Your task to perform on an android device: toggle pop-ups in chrome Image 0: 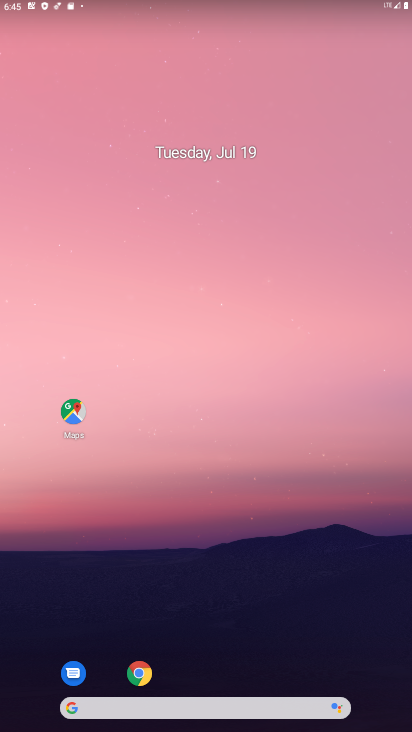
Step 0: drag from (376, 669) to (241, 56)
Your task to perform on an android device: toggle pop-ups in chrome Image 1: 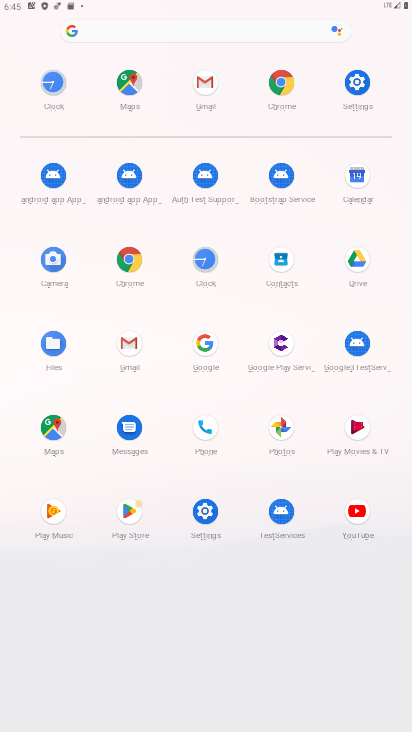
Step 1: click (127, 252)
Your task to perform on an android device: toggle pop-ups in chrome Image 2: 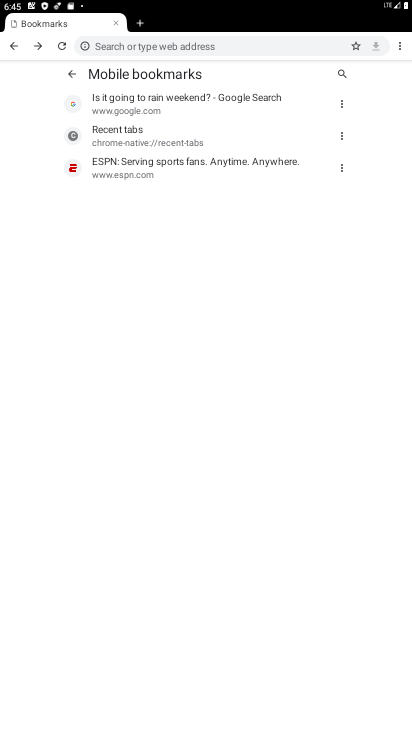
Step 2: click (398, 47)
Your task to perform on an android device: toggle pop-ups in chrome Image 3: 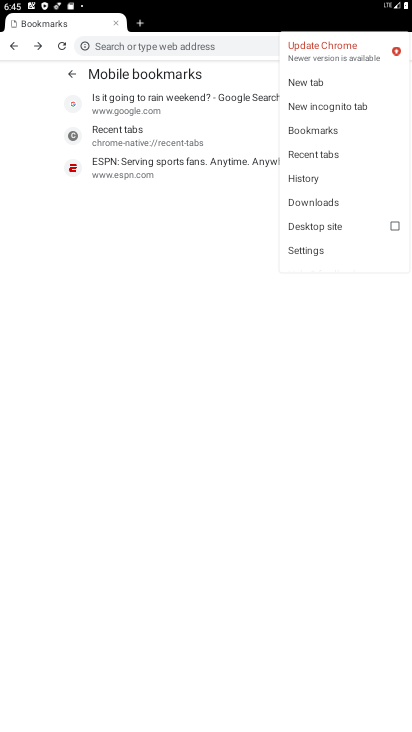
Step 3: click (311, 249)
Your task to perform on an android device: toggle pop-ups in chrome Image 4: 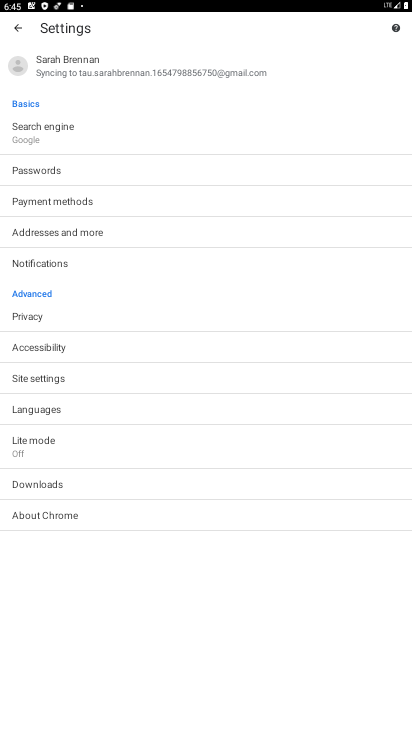
Step 4: click (67, 383)
Your task to perform on an android device: toggle pop-ups in chrome Image 5: 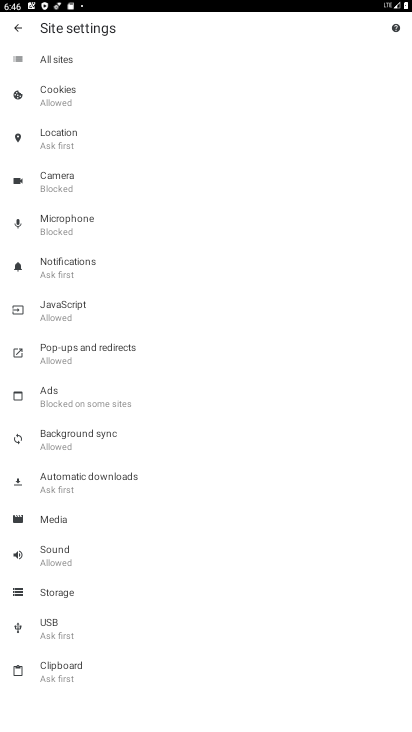
Step 5: click (82, 355)
Your task to perform on an android device: toggle pop-ups in chrome Image 6: 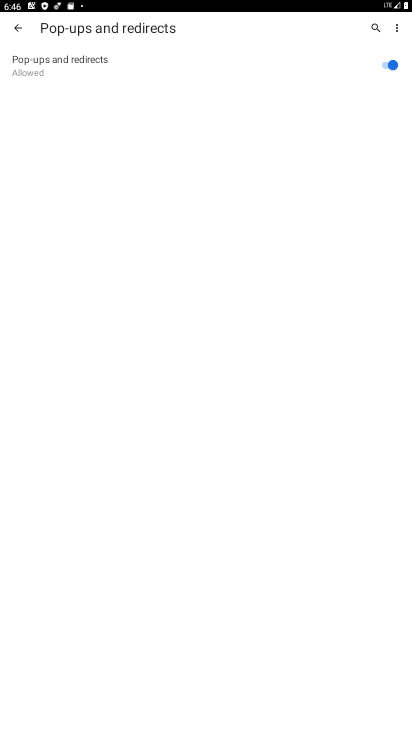
Step 6: click (382, 70)
Your task to perform on an android device: toggle pop-ups in chrome Image 7: 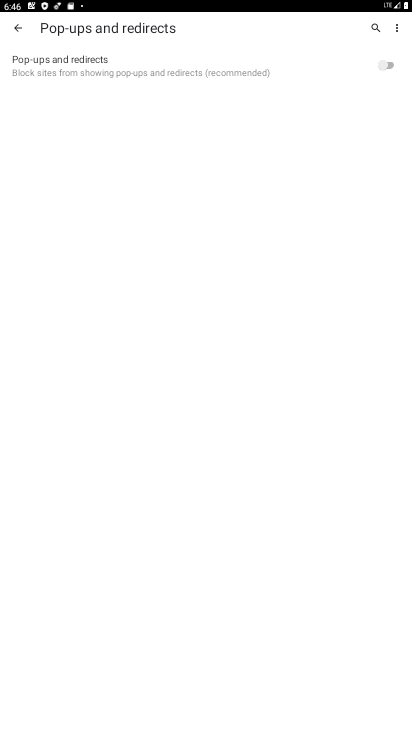
Step 7: task complete